Your task to perform on an android device: empty trash in the gmail app Image 0: 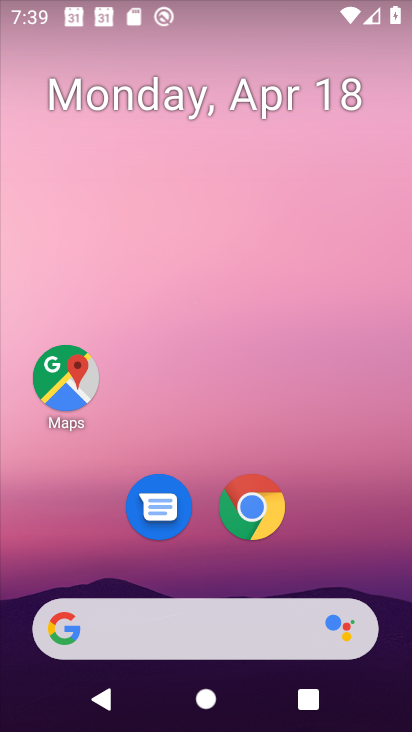
Step 0: drag from (5, 494) to (276, 37)
Your task to perform on an android device: empty trash in the gmail app Image 1: 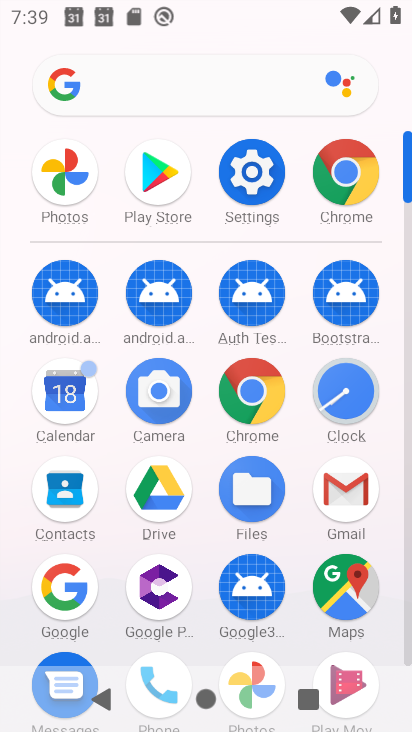
Step 1: click (324, 495)
Your task to perform on an android device: empty trash in the gmail app Image 2: 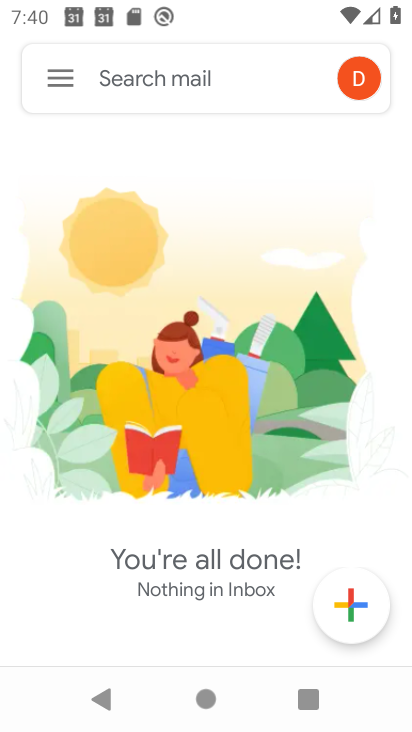
Step 2: click (43, 85)
Your task to perform on an android device: empty trash in the gmail app Image 3: 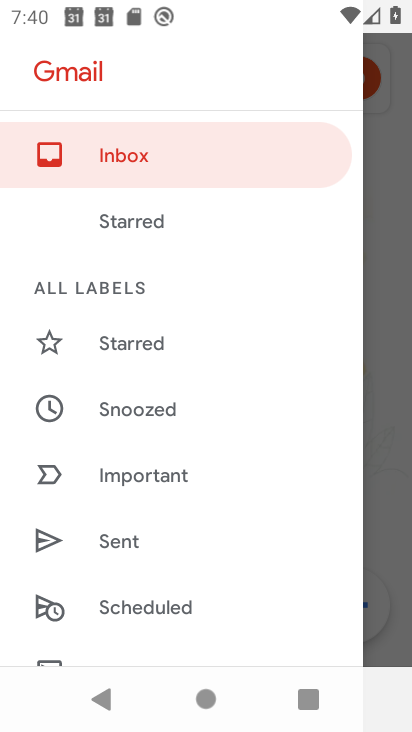
Step 3: drag from (126, 600) to (209, 154)
Your task to perform on an android device: empty trash in the gmail app Image 4: 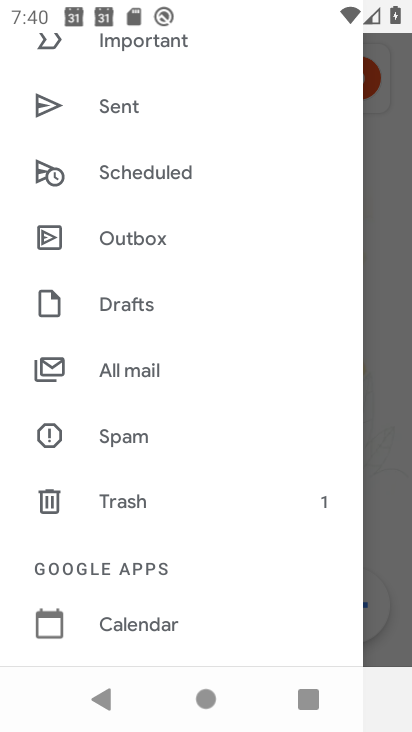
Step 4: click (133, 501)
Your task to perform on an android device: empty trash in the gmail app Image 5: 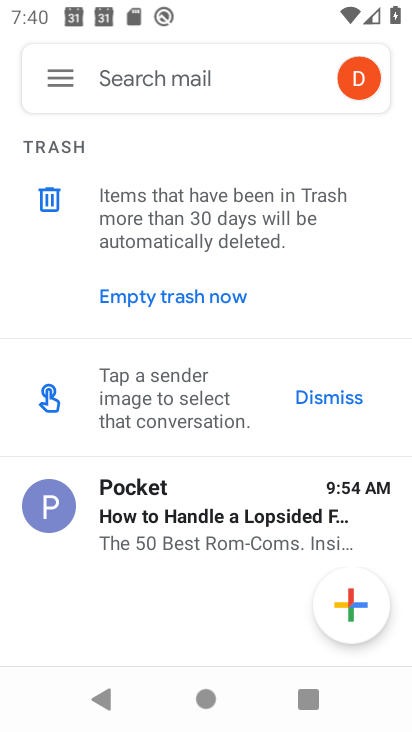
Step 5: click (132, 501)
Your task to perform on an android device: empty trash in the gmail app Image 6: 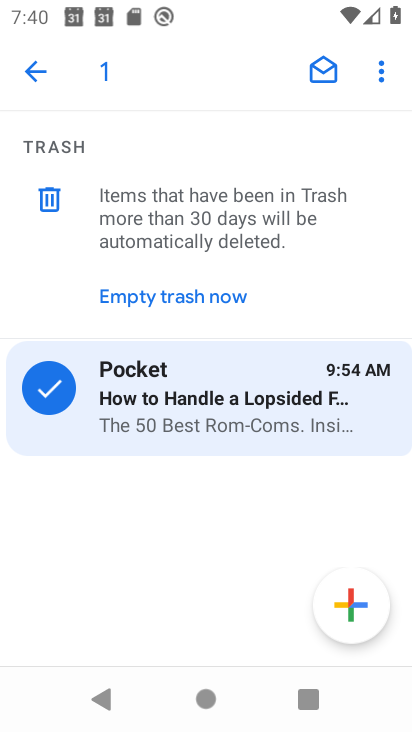
Step 6: click (159, 298)
Your task to perform on an android device: empty trash in the gmail app Image 7: 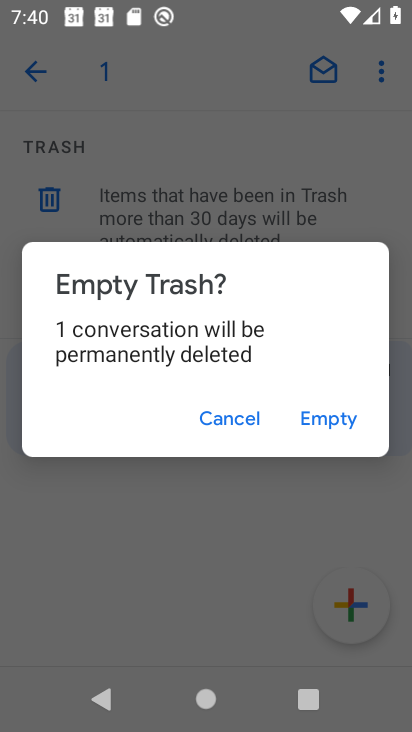
Step 7: click (316, 427)
Your task to perform on an android device: empty trash in the gmail app Image 8: 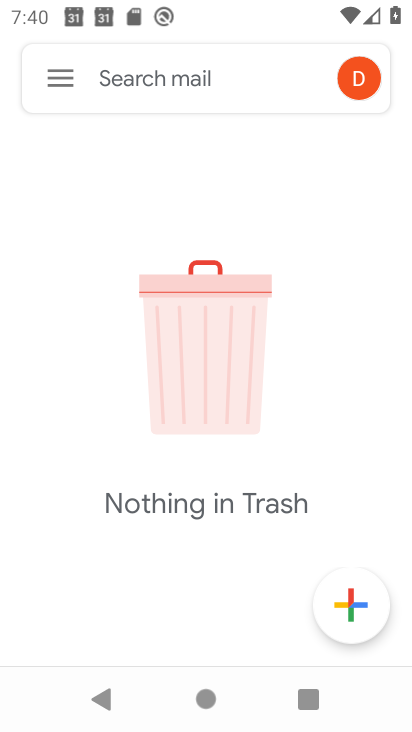
Step 8: task complete